Your task to perform on an android device: choose inbox layout in the gmail app Image 0: 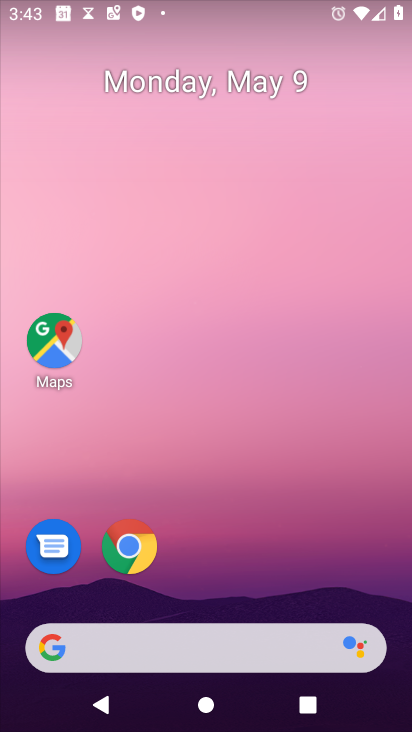
Step 0: drag from (293, 543) to (242, 139)
Your task to perform on an android device: choose inbox layout in the gmail app Image 1: 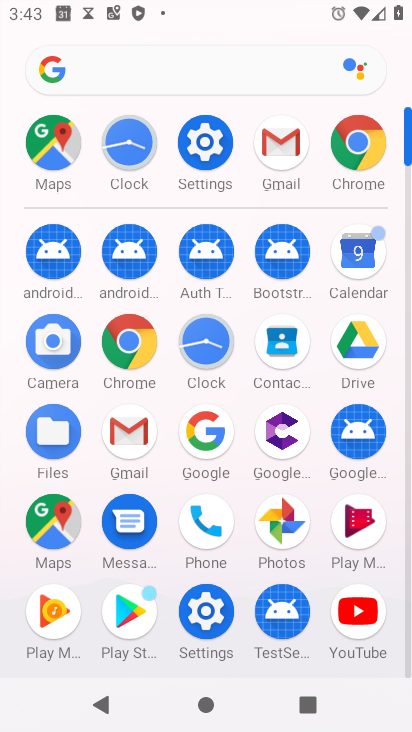
Step 1: click (262, 145)
Your task to perform on an android device: choose inbox layout in the gmail app Image 2: 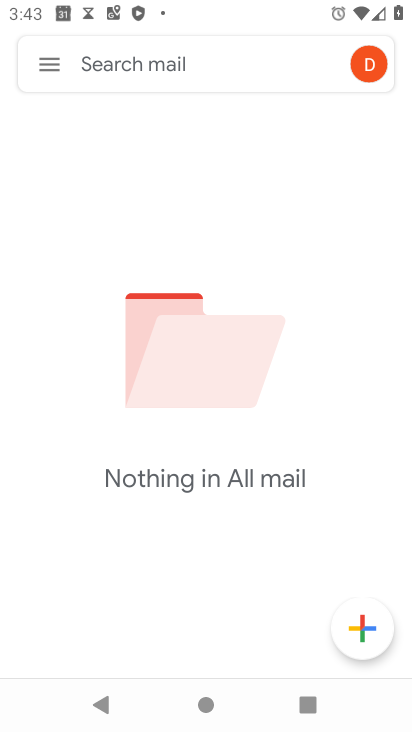
Step 2: click (56, 72)
Your task to perform on an android device: choose inbox layout in the gmail app Image 3: 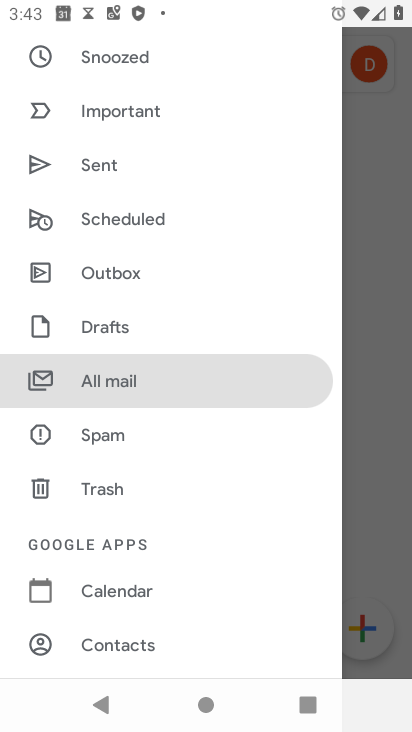
Step 3: drag from (196, 629) to (160, 209)
Your task to perform on an android device: choose inbox layout in the gmail app Image 4: 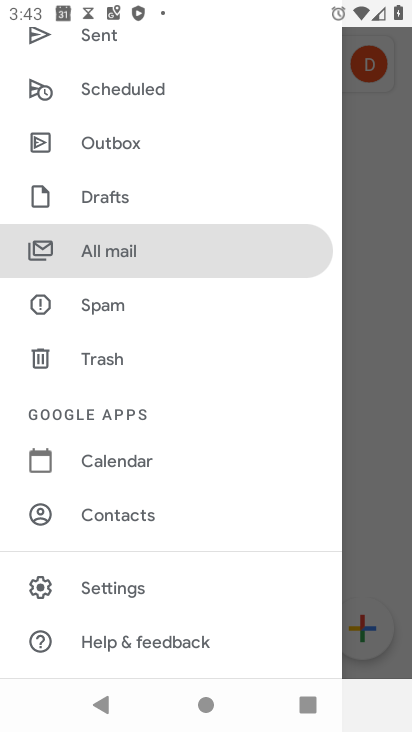
Step 4: click (163, 587)
Your task to perform on an android device: choose inbox layout in the gmail app Image 5: 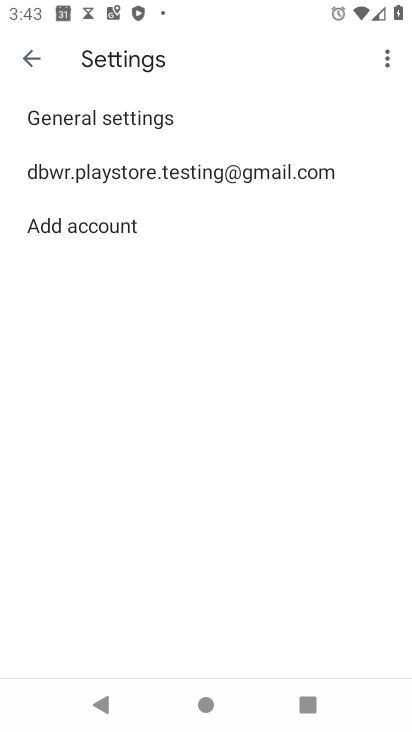
Step 5: click (113, 183)
Your task to perform on an android device: choose inbox layout in the gmail app Image 6: 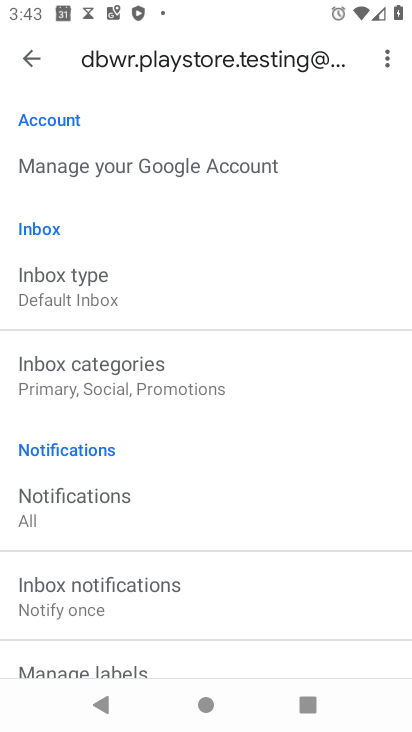
Step 6: click (106, 276)
Your task to perform on an android device: choose inbox layout in the gmail app Image 7: 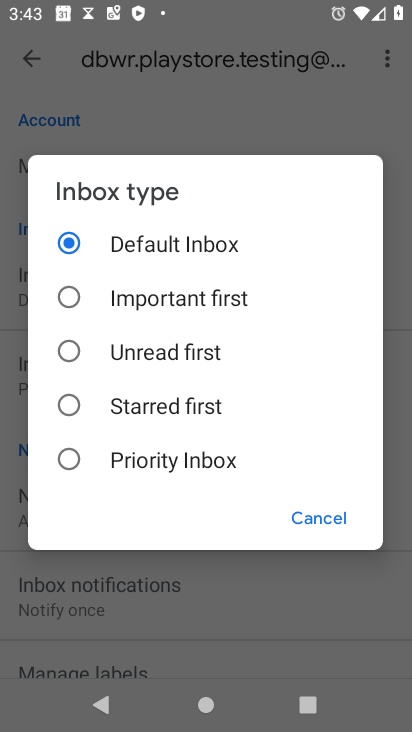
Step 7: click (72, 298)
Your task to perform on an android device: choose inbox layout in the gmail app Image 8: 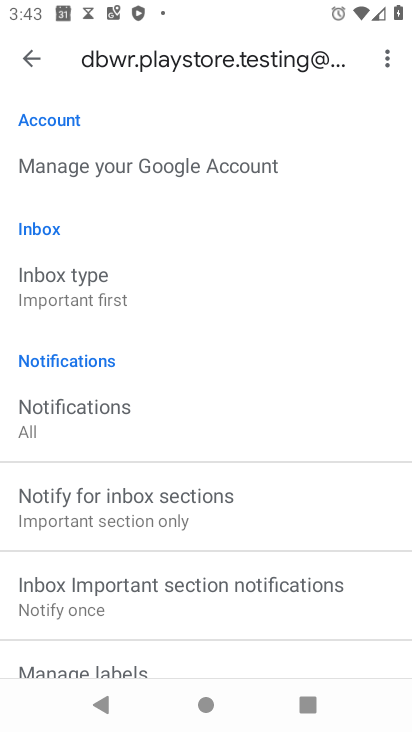
Step 8: task complete